Your task to perform on an android device: Open privacy settings Image 0: 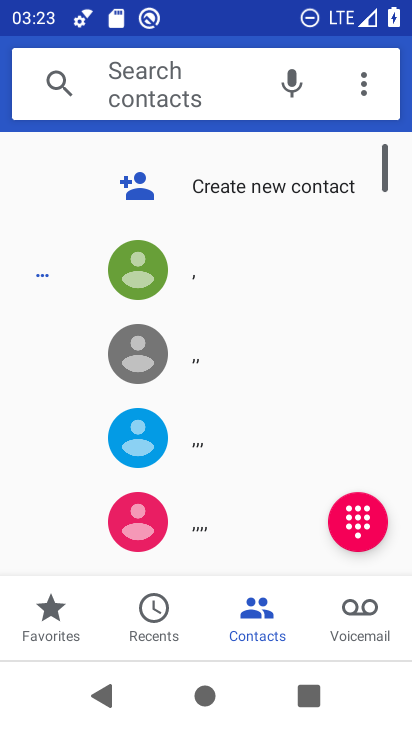
Step 0: press home button
Your task to perform on an android device: Open privacy settings Image 1: 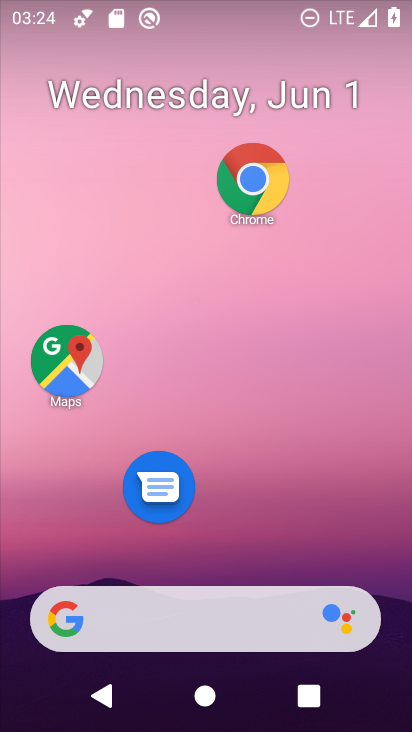
Step 1: drag from (278, 553) to (288, 226)
Your task to perform on an android device: Open privacy settings Image 2: 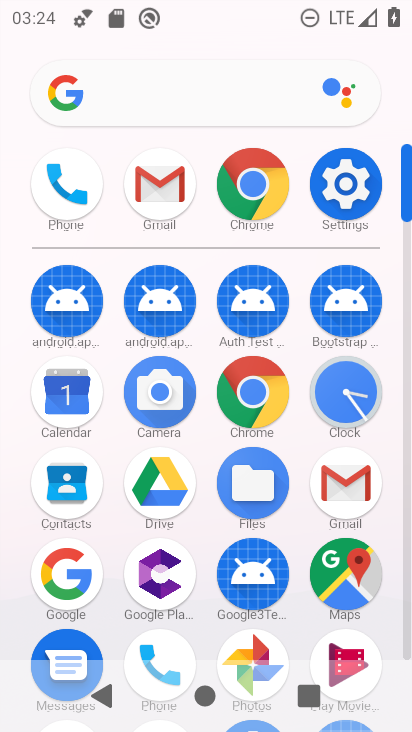
Step 2: click (348, 161)
Your task to perform on an android device: Open privacy settings Image 3: 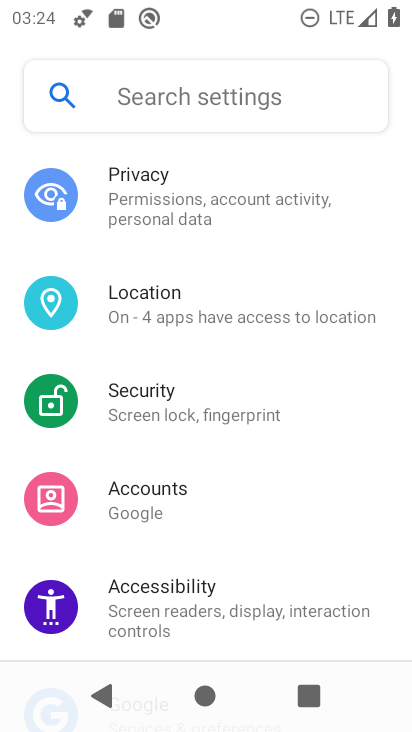
Step 3: click (185, 168)
Your task to perform on an android device: Open privacy settings Image 4: 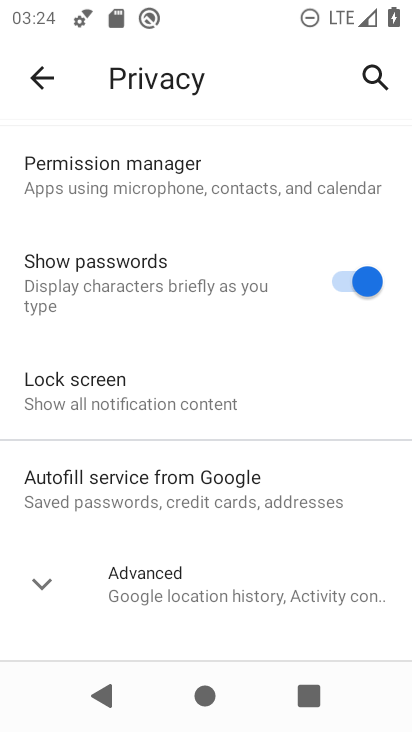
Step 4: task complete